Your task to perform on an android device: Open the stopwatch Image 0: 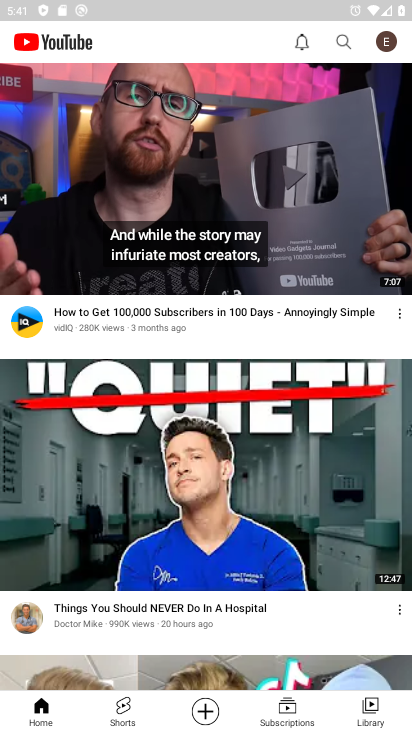
Step 0: press home button
Your task to perform on an android device: Open the stopwatch Image 1: 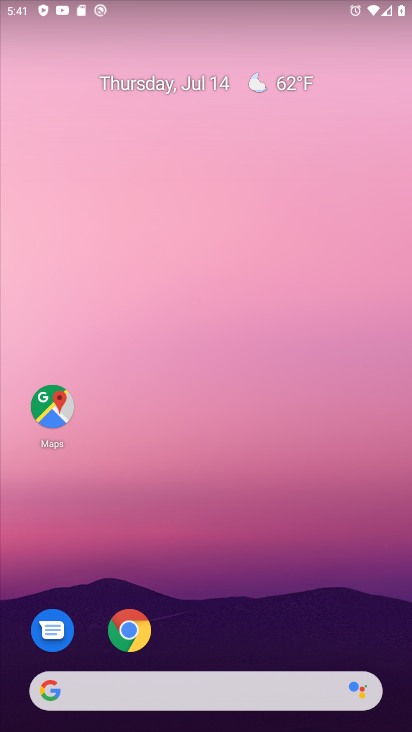
Step 1: drag from (231, 609) to (226, 30)
Your task to perform on an android device: Open the stopwatch Image 2: 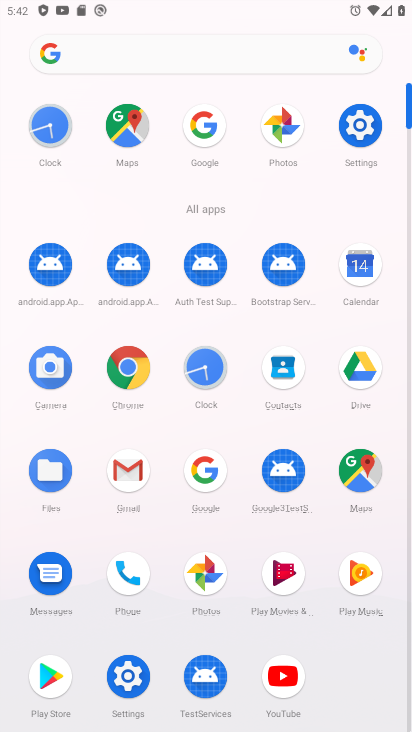
Step 2: click (61, 141)
Your task to perform on an android device: Open the stopwatch Image 3: 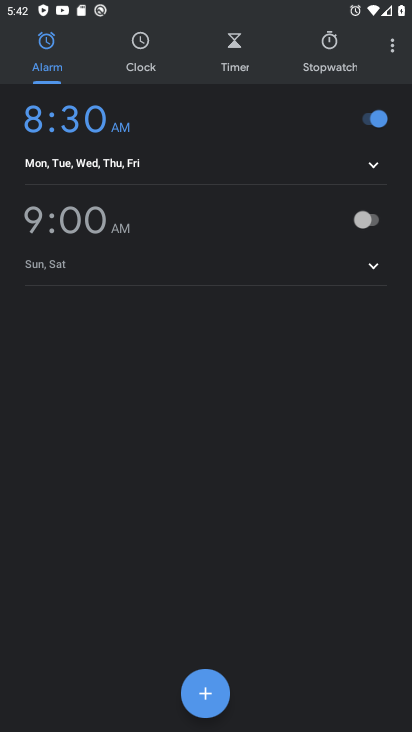
Step 3: click (343, 52)
Your task to perform on an android device: Open the stopwatch Image 4: 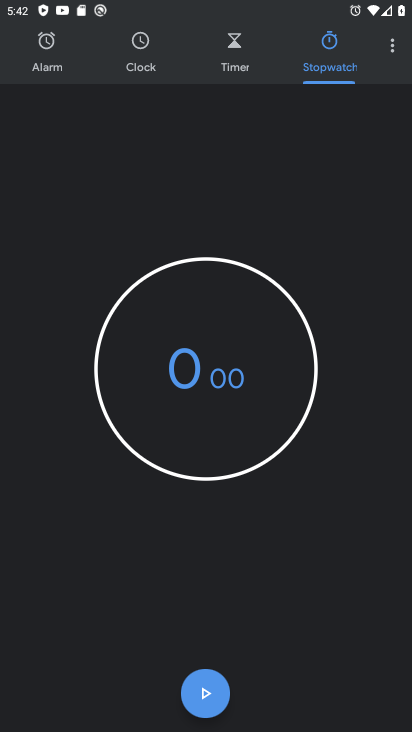
Step 4: task complete